Your task to perform on an android device: Search for custom wallets on etsy. Image 0: 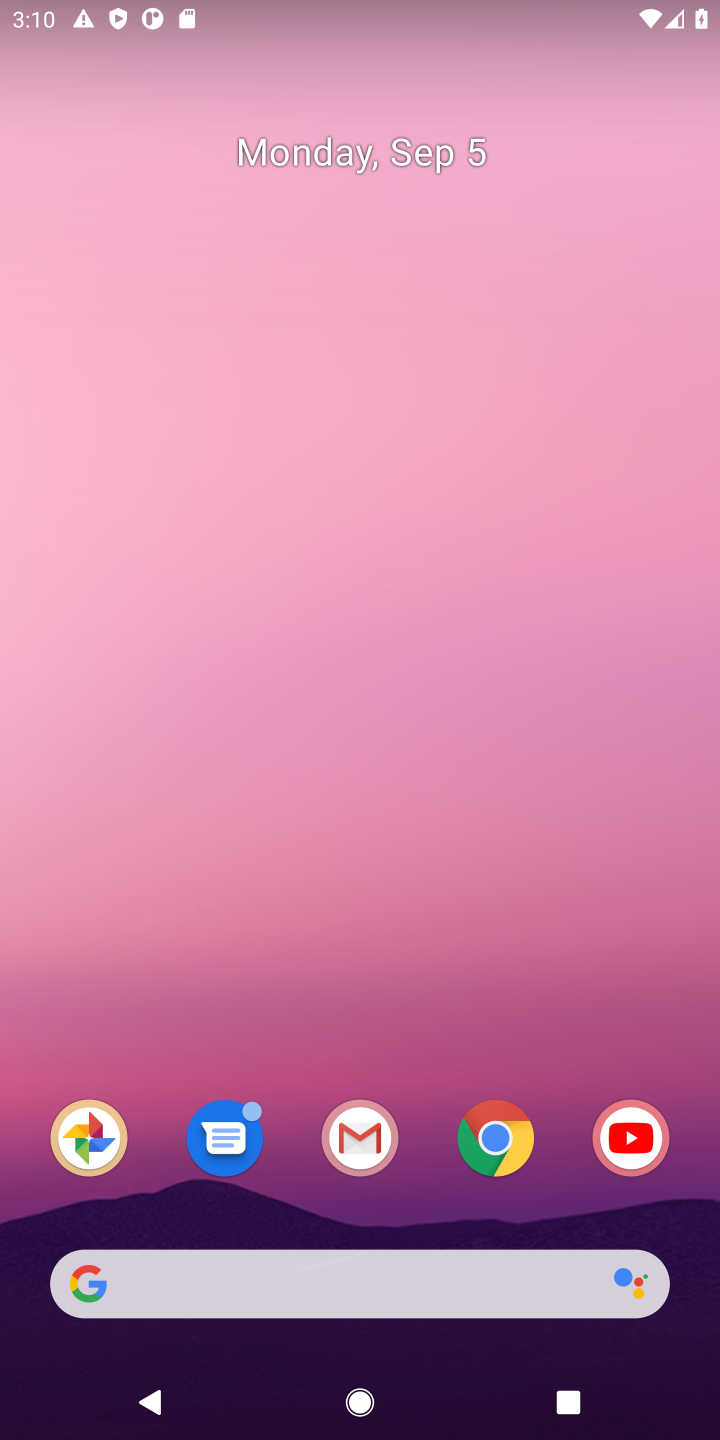
Step 0: click (495, 1141)
Your task to perform on an android device: Search for custom wallets on etsy. Image 1: 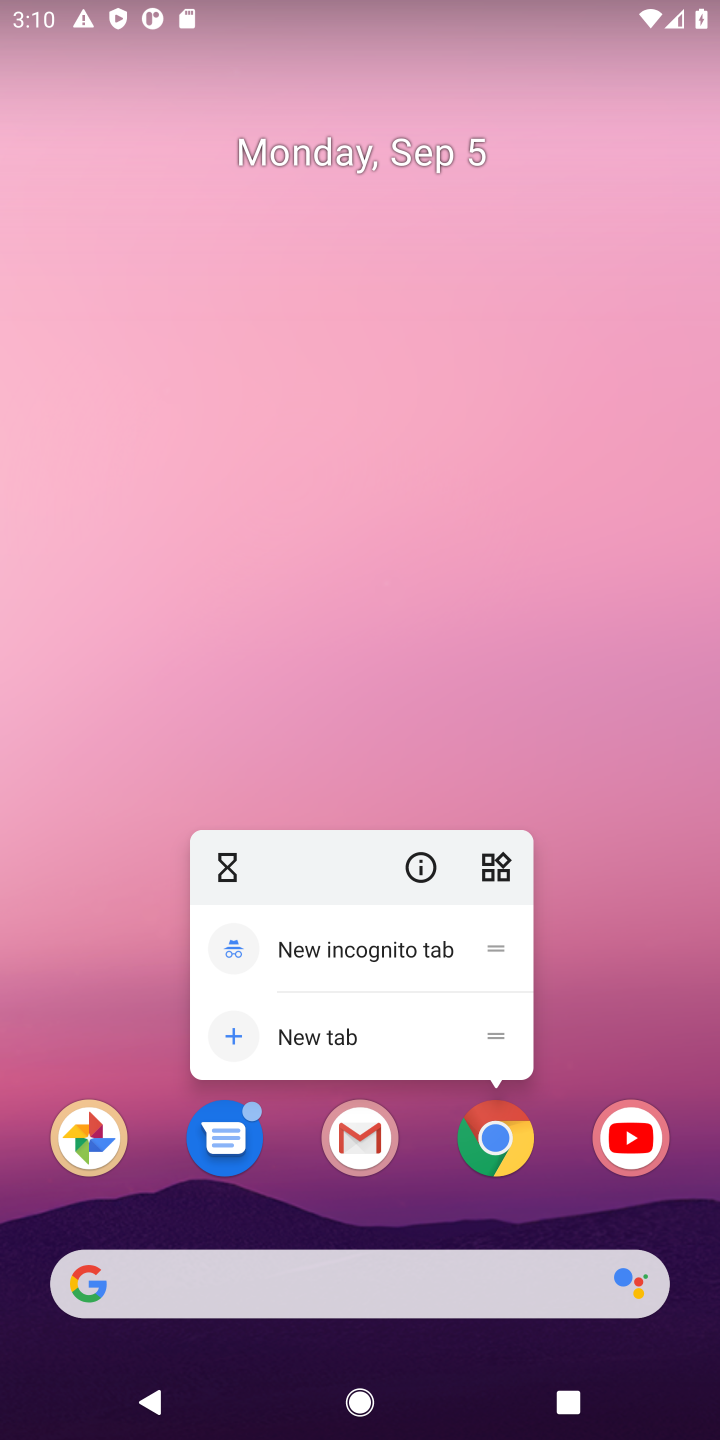
Step 1: click (495, 1141)
Your task to perform on an android device: Search for custom wallets on etsy. Image 2: 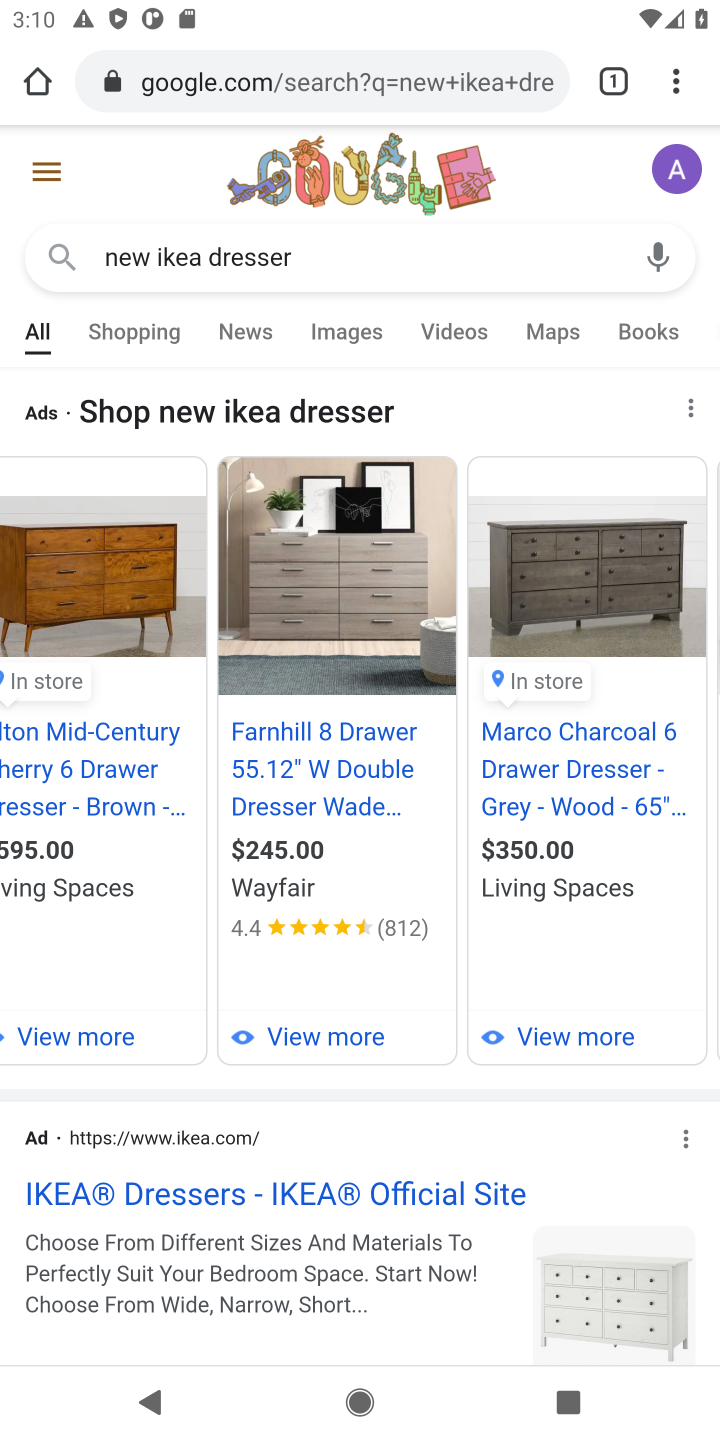
Step 2: click (378, 87)
Your task to perform on an android device: Search for custom wallets on etsy. Image 3: 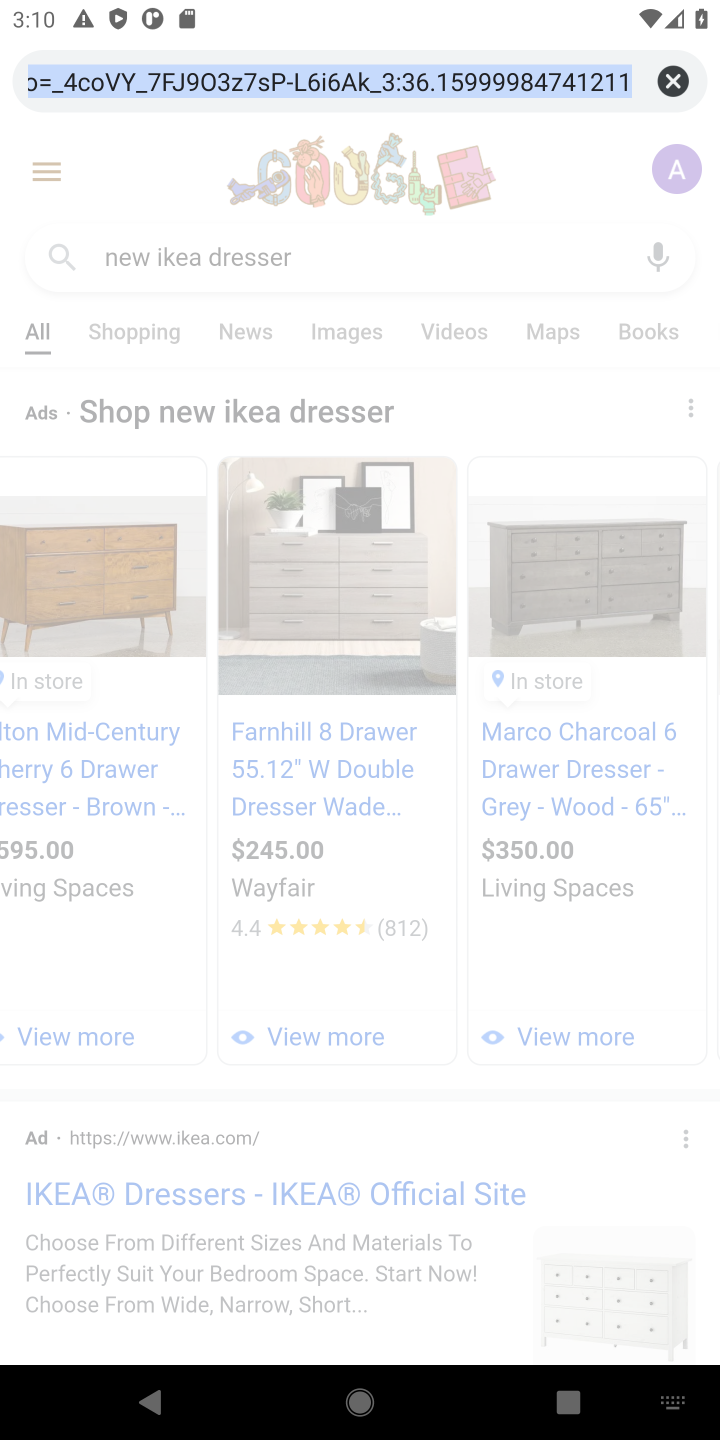
Step 3: type "etsy"
Your task to perform on an android device: Search for custom wallets on etsy. Image 4: 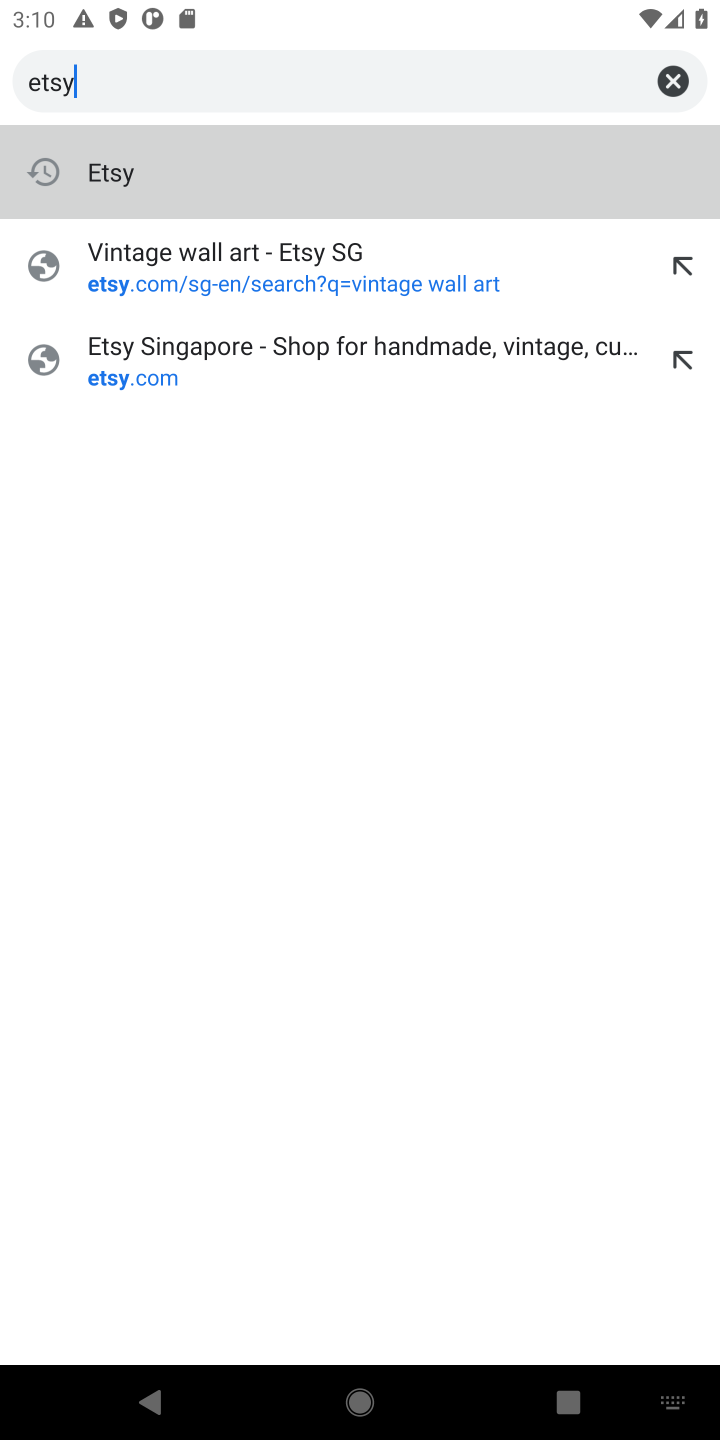
Step 4: click (354, 197)
Your task to perform on an android device: Search for custom wallets on etsy. Image 5: 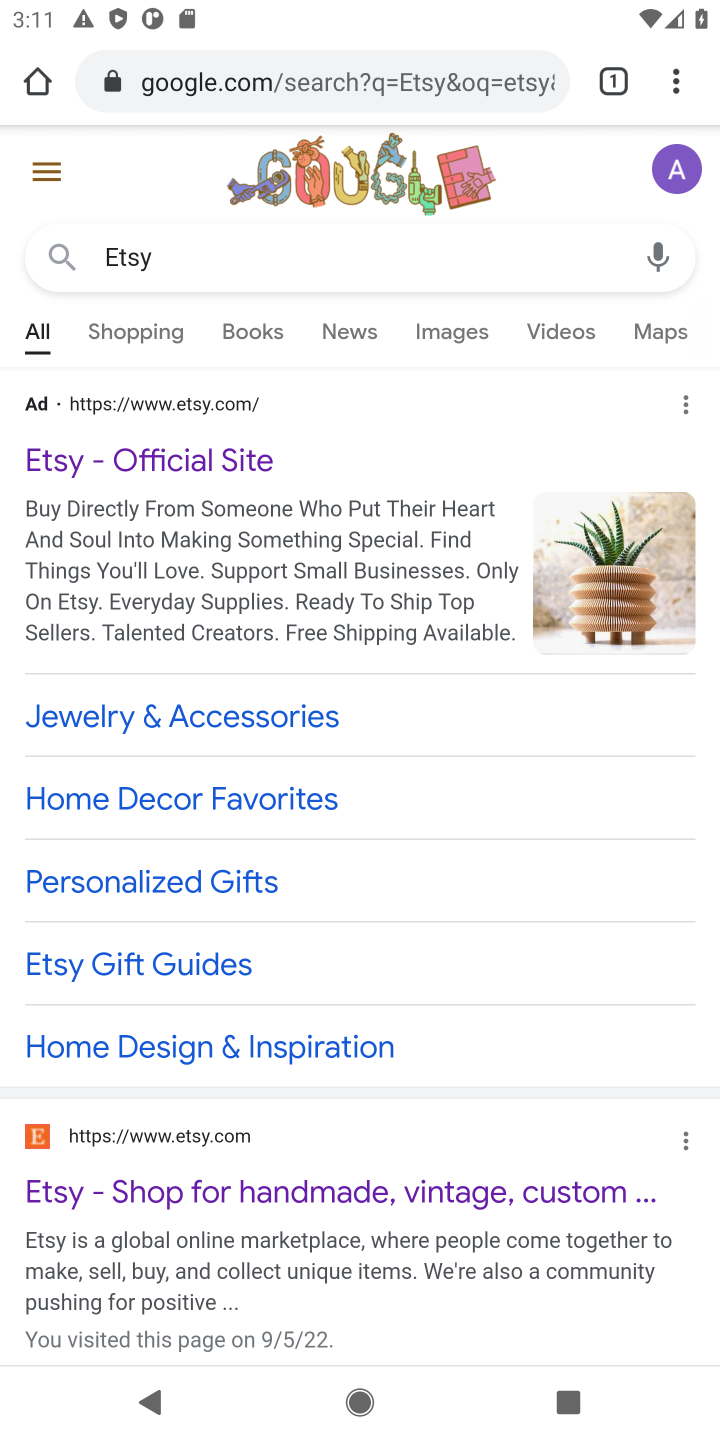
Step 5: click (239, 1207)
Your task to perform on an android device: Search for custom wallets on etsy. Image 6: 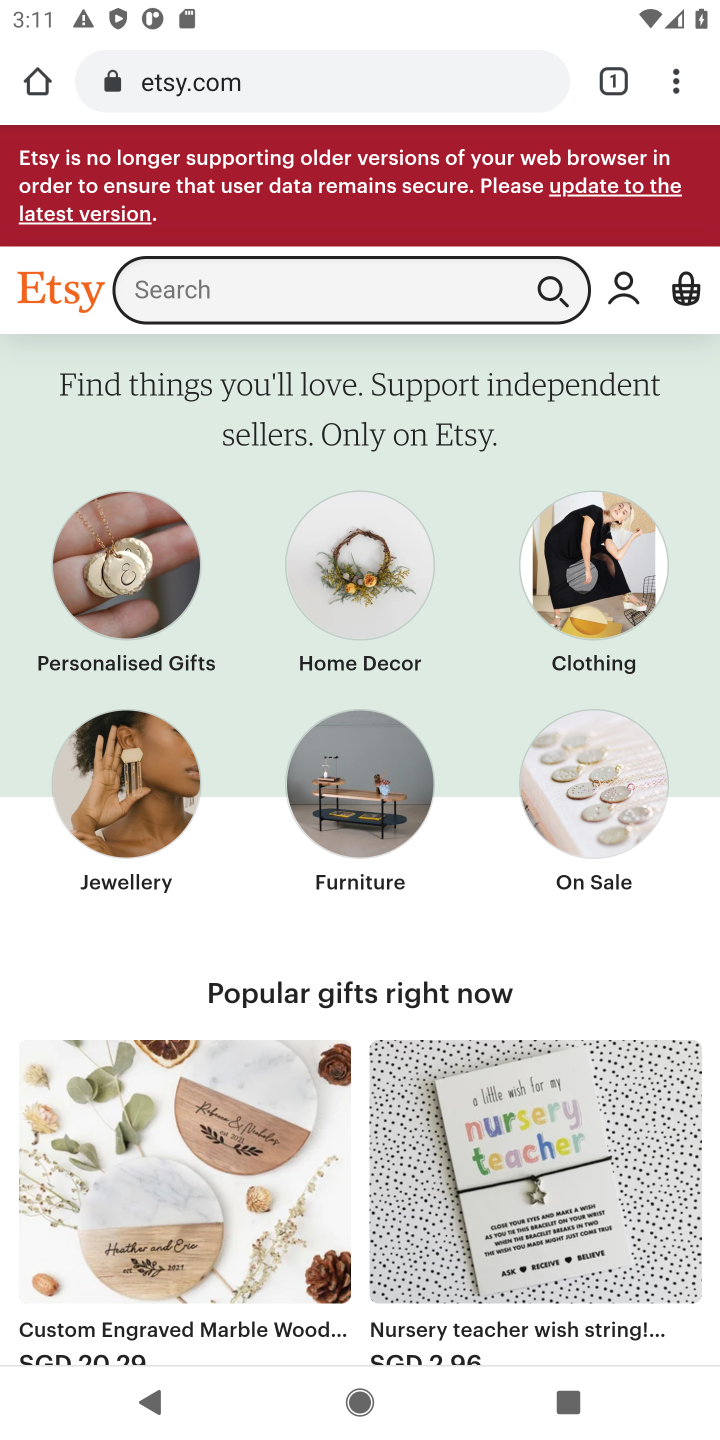
Step 6: click (283, 293)
Your task to perform on an android device: Search for custom wallets on etsy. Image 7: 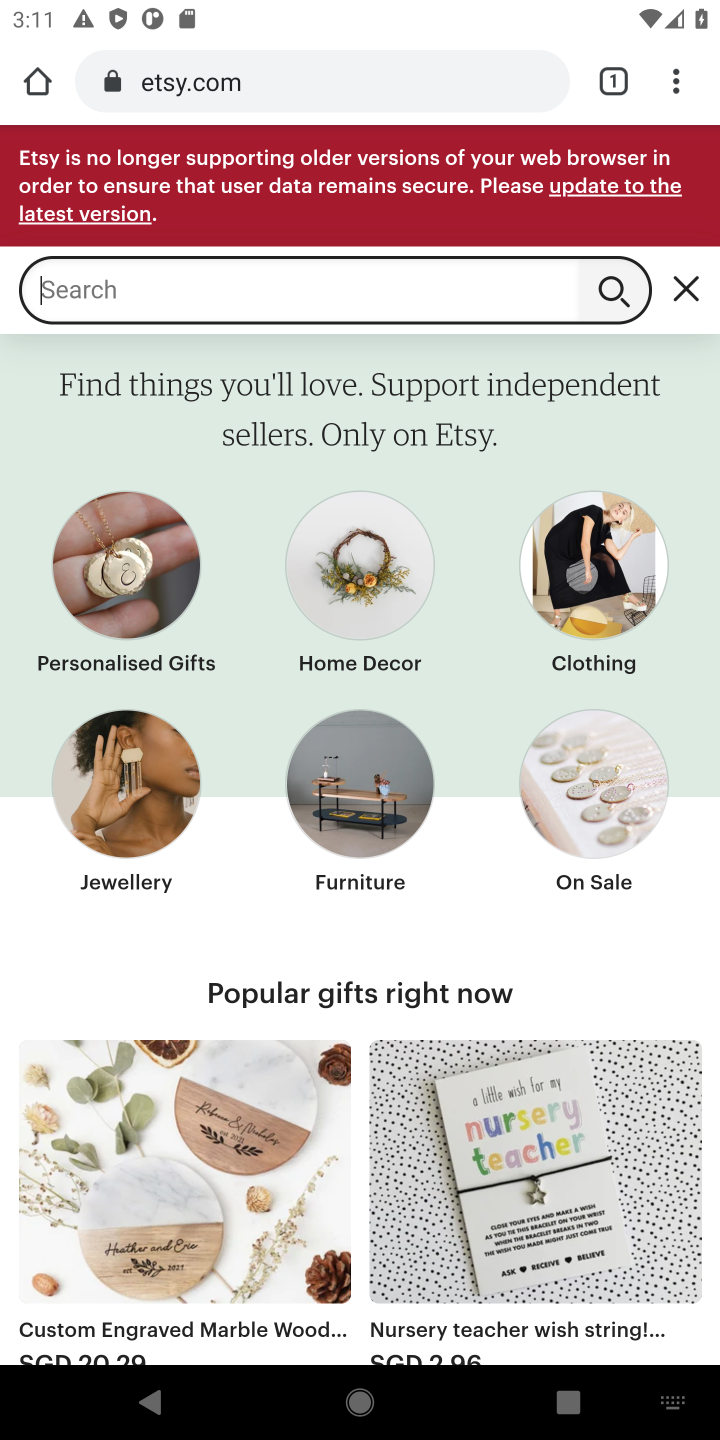
Step 7: click (351, 306)
Your task to perform on an android device: Search for custom wallets on etsy. Image 8: 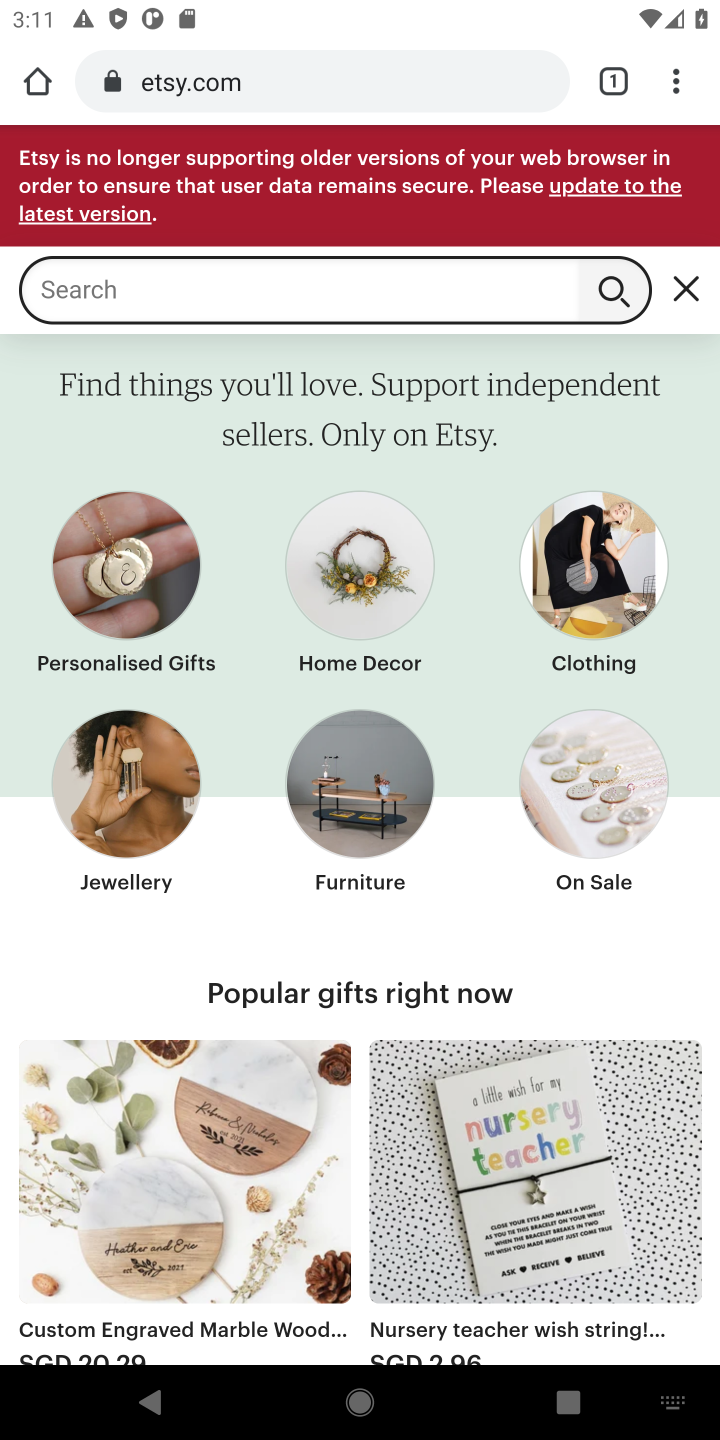
Step 8: type "custom wallets"
Your task to perform on an android device: Search for custom wallets on etsy. Image 9: 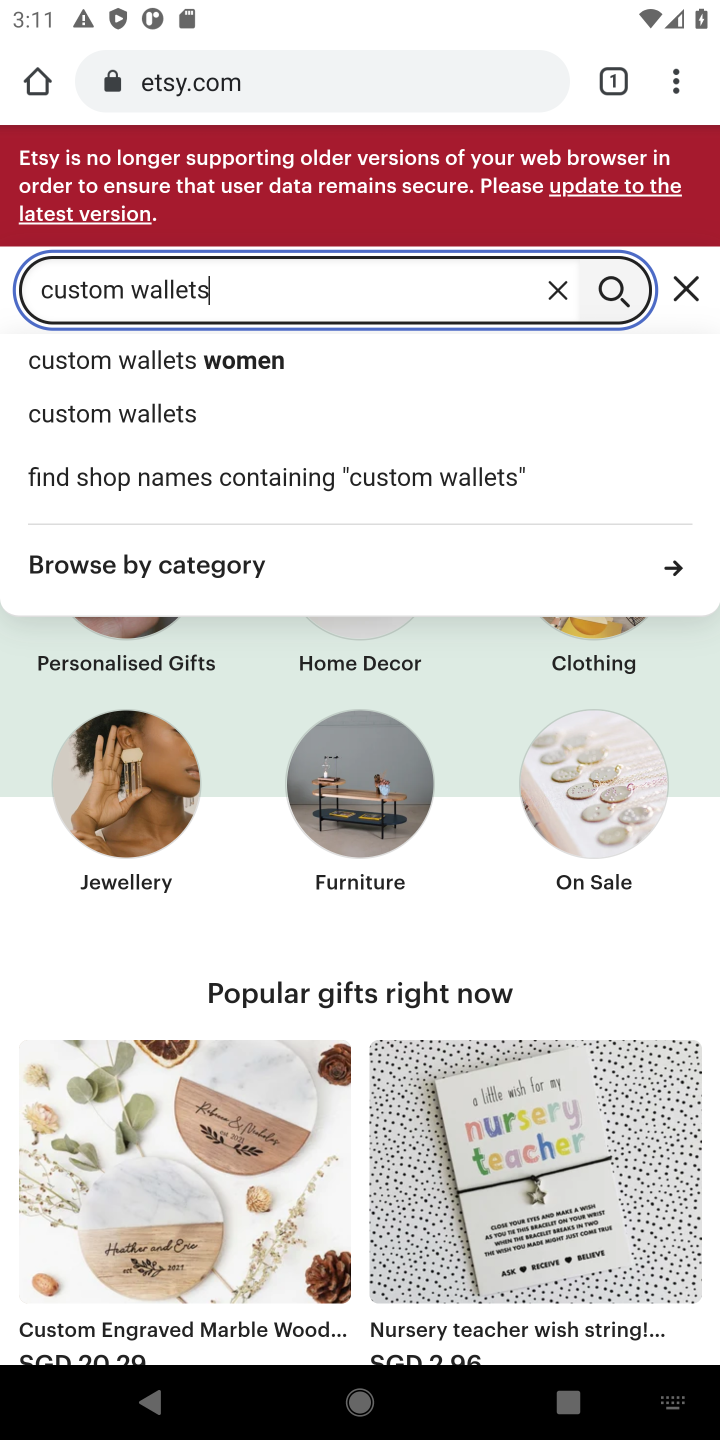
Step 9: click (619, 300)
Your task to perform on an android device: Search for custom wallets on etsy. Image 10: 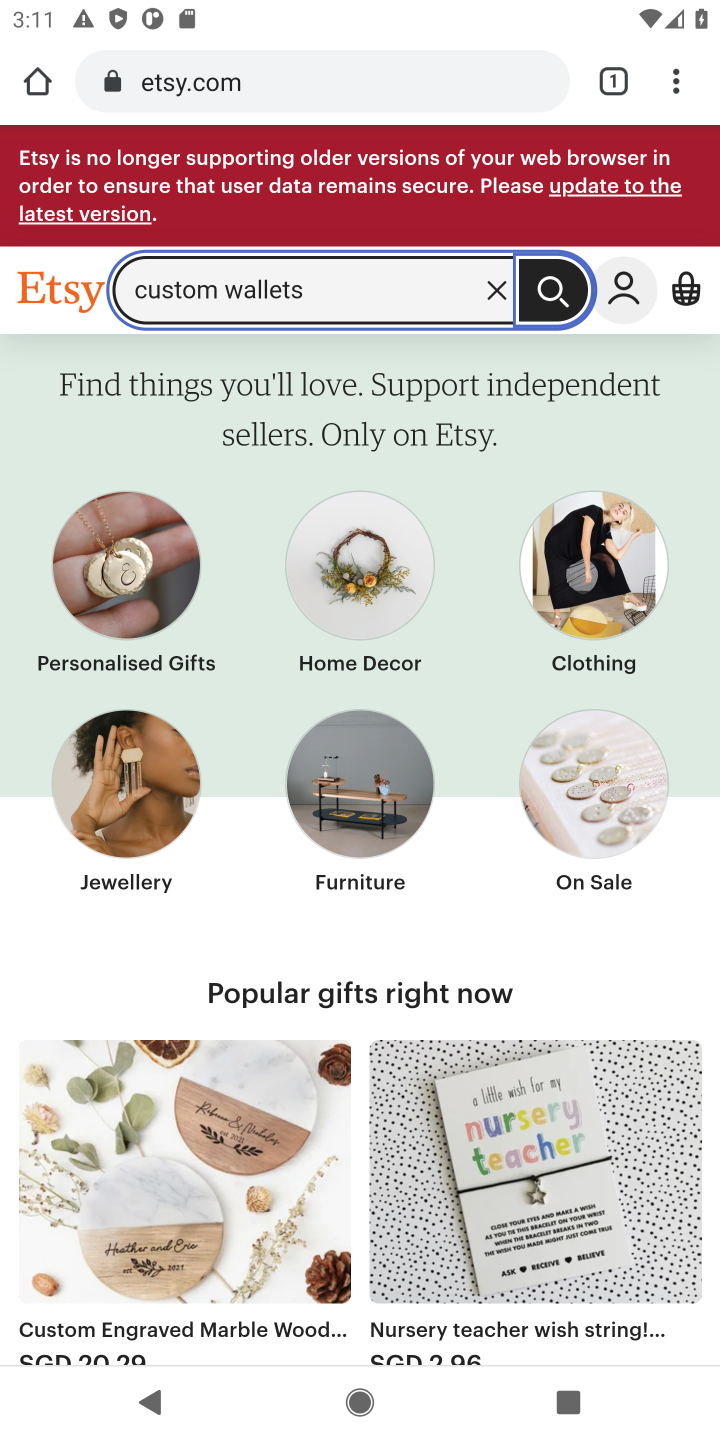
Step 10: task complete